Your task to perform on an android device: Go to display settings Image 0: 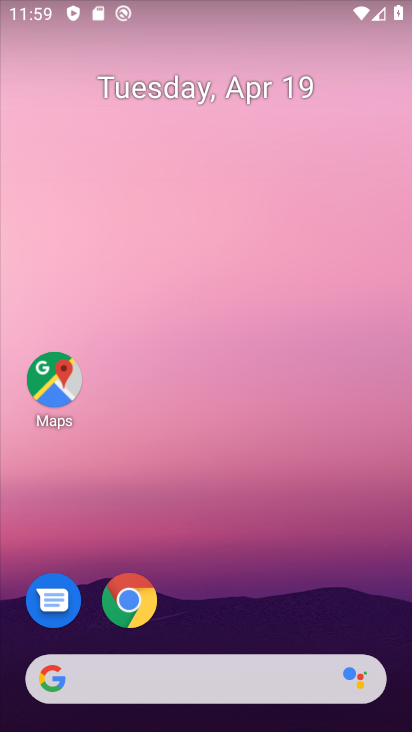
Step 0: drag from (362, 547) to (263, 38)
Your task to perform on an android device: Go to display settings Image 1: 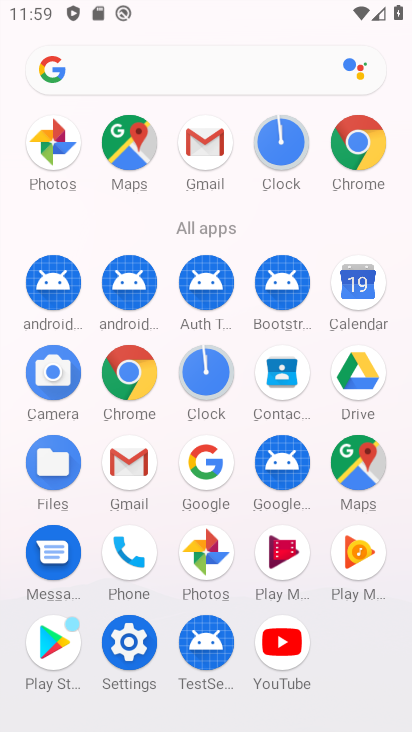
Step 1: drag from (0, 528) to (2, 223)
Your task to perform on an android device: Go to display settings Image 2: 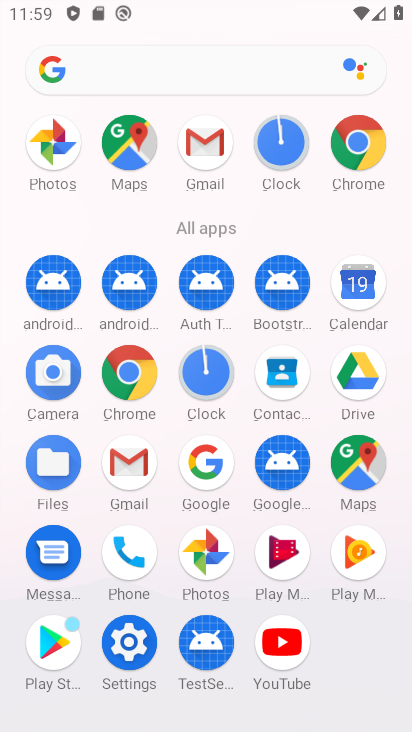
Step 2: click (130, 638)
Your task to perform on an android device: Go to display settings Image 3: 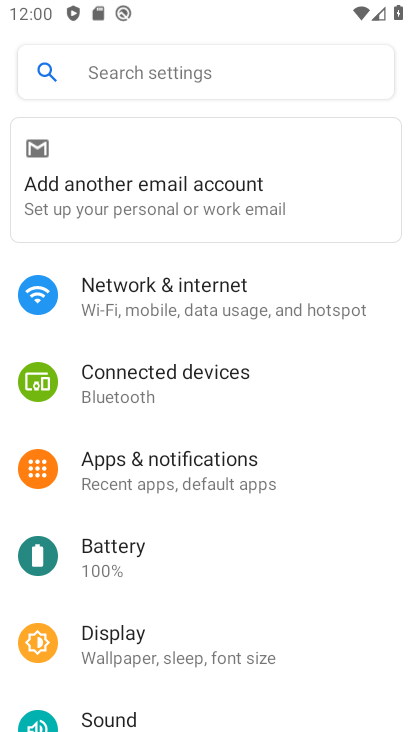
Step 3: click (142, 639)
Your task to perform on an android device: Go to display settings Image 4: 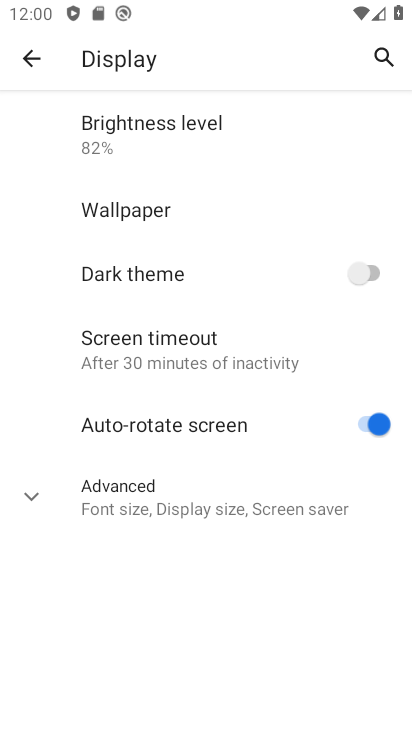
Step 4: click (34, 491)
Your task to perform on an android device: Go to display settings Image 5: 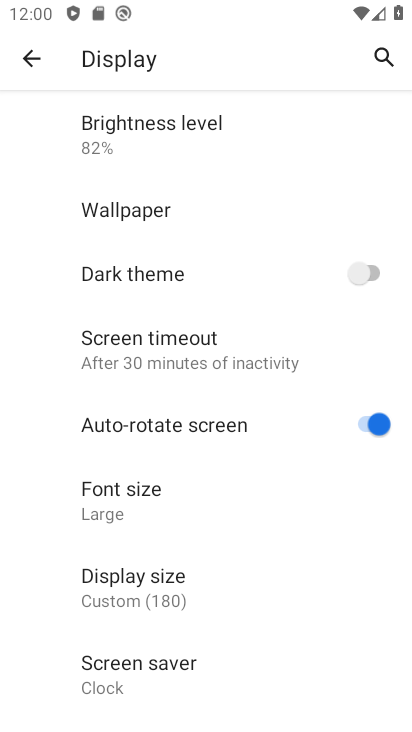
Step 5: task complete